Your task to perform on an android device: Go to privacy settings Image 0: 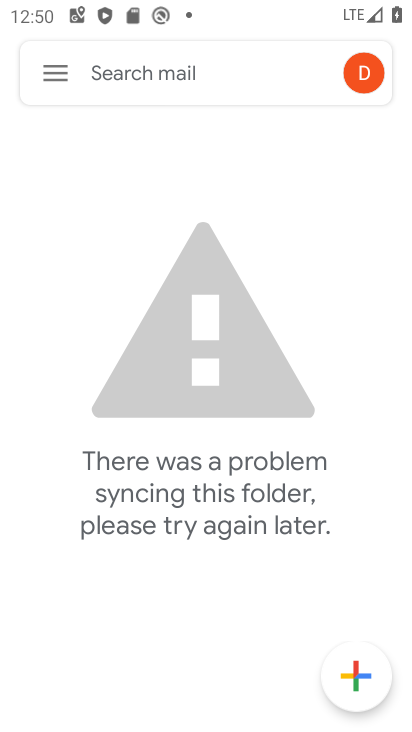
Step 0: press home button
Your task to perform on an android device: Go to privacy settings Image 1: 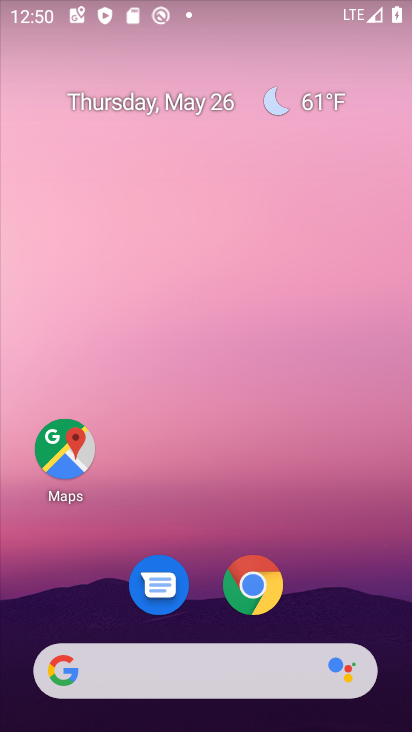
Step 1: drag from (278, 545) to (332, 115)
Your task to perform on an android device: Go to privacy settings Image 2: 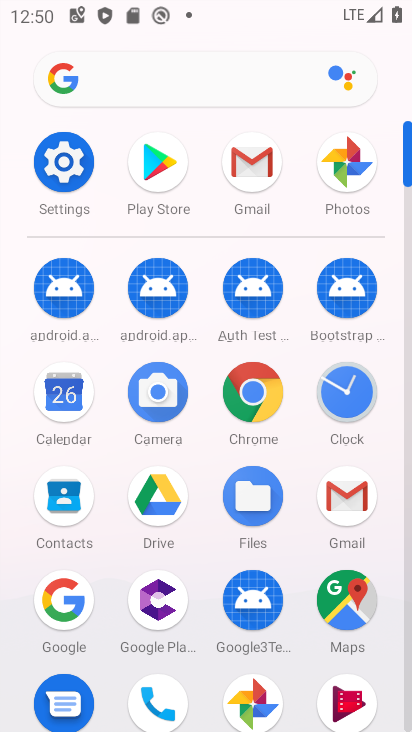
Step 2: click (49, 154)
Your task to perform on an android device: Go to privacy settings Image 3: 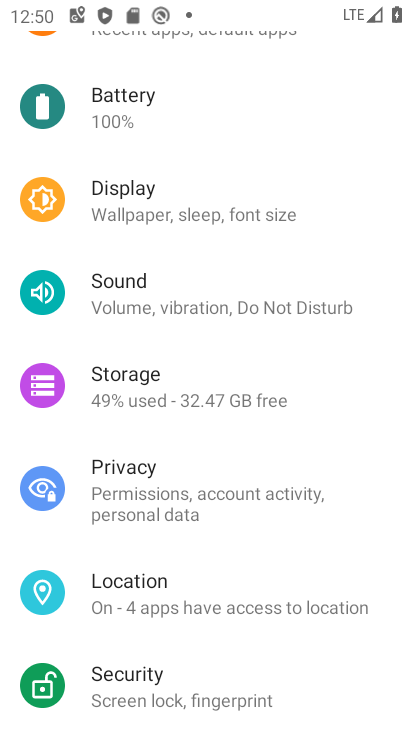
Step 3: click (198, 469)
Your task to perform on an android device: Go to privacy settings Image 4: 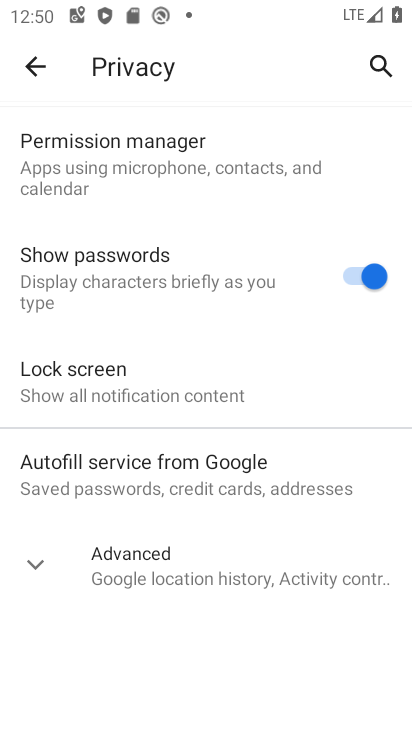
Step 4: task complete